Your task to perform on an android device: What's the weather going to be tomorrow? Image 0: 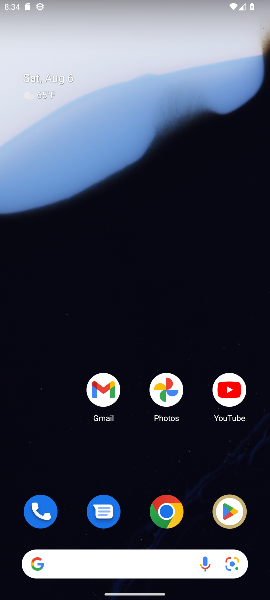
Step 0: press home button
Your task to perform on an android device: What's the weather going to be tomorrow? Image 1: 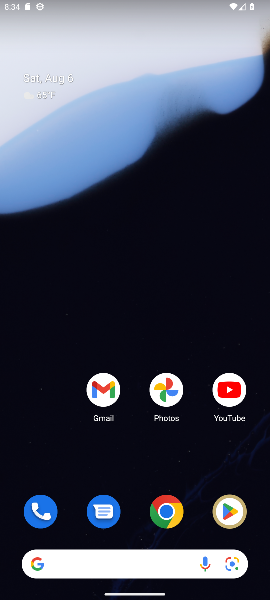
Step 1: click (177, 519)
Your task to perform on an android device: What's the weather going to be tomorrow? Image 2: 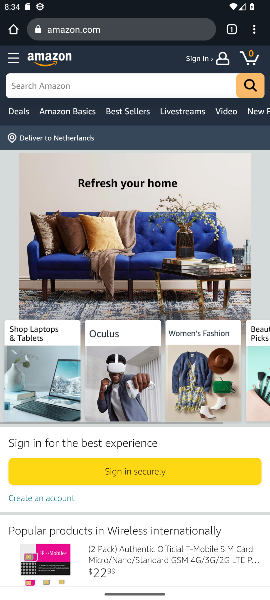
Step 2: click (156, 24)
Your task to perform on an android device: What's the weather going to be tomorrow? Image 3: 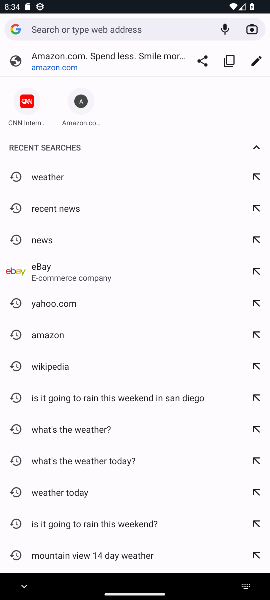
Step 3: type "What's the weather going to be tomorrow?"
Your task to perform on an android device: What's the weather going to be tomorrow? Image 4: 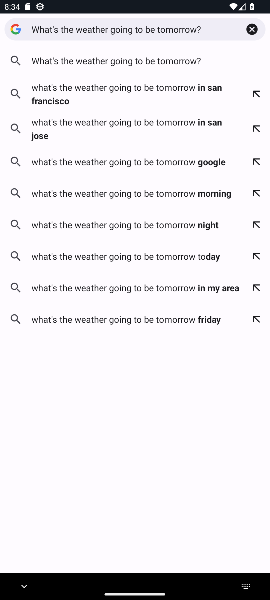
Step 4: click (109, 65)
Your task to perform on an android device: What's the weather going to be tomorrow? Image 5: 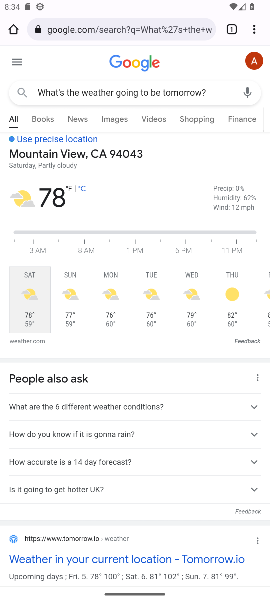
Step 5: task complete